Your task to perform on an android device: Open CNN.com Image 0: 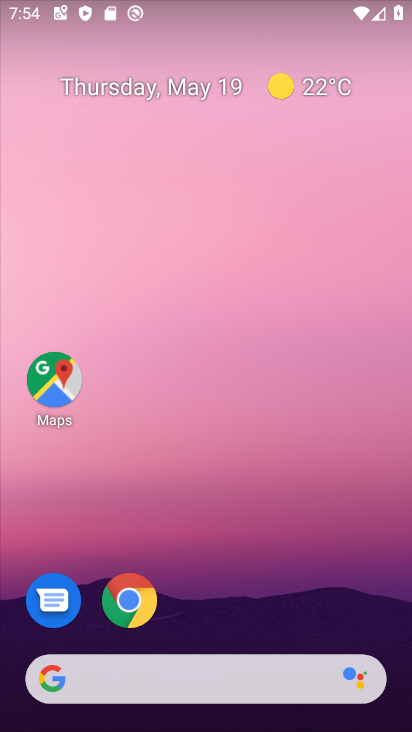
Step 0: drag from (276, 548) to (296, 156)
Your task to perform on an android device: Open CNN.com Image 1: 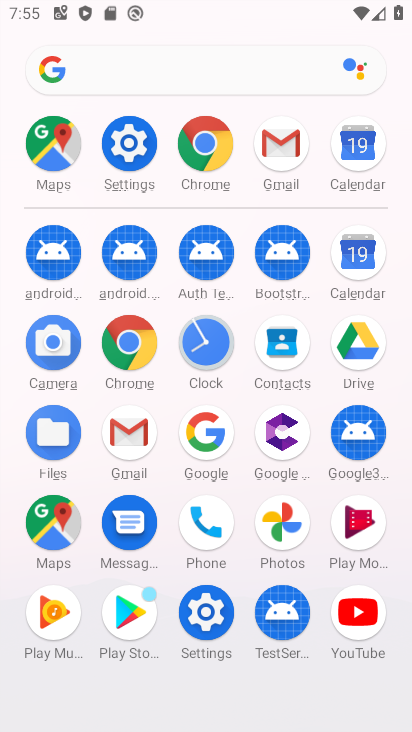
Step 1: click (117, 348)
Your task to perform on an android device: Open CNN.com Image 2: 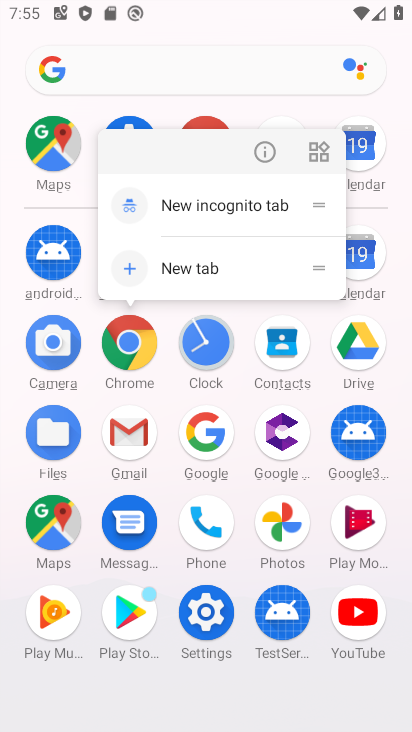
Step 2: click (134, 358)
Your task to perform on an android device: Open CNN.com Image 3: 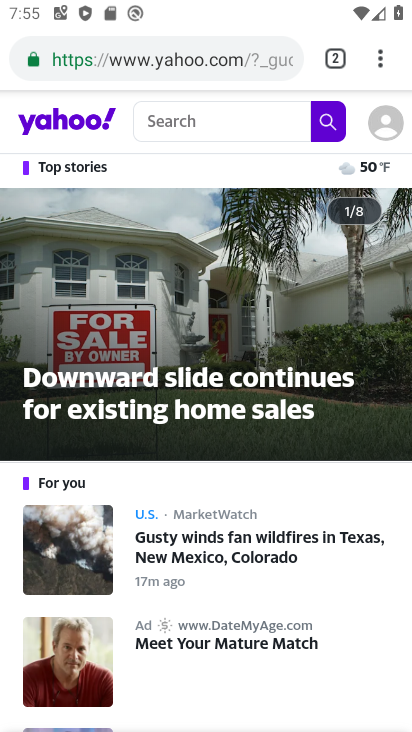
Step 3: click (200, 64)
Your task to perform on an android device: Open CNN.com Image 4: 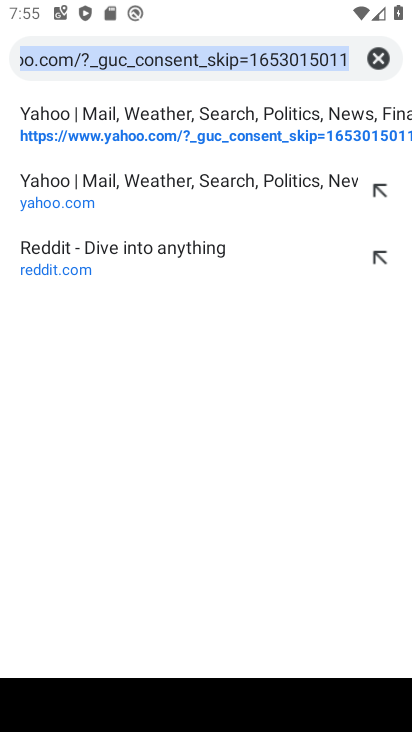
Step 4: click (376, 62)
Your task to perform on an android device: Open CNN.com Image 5: 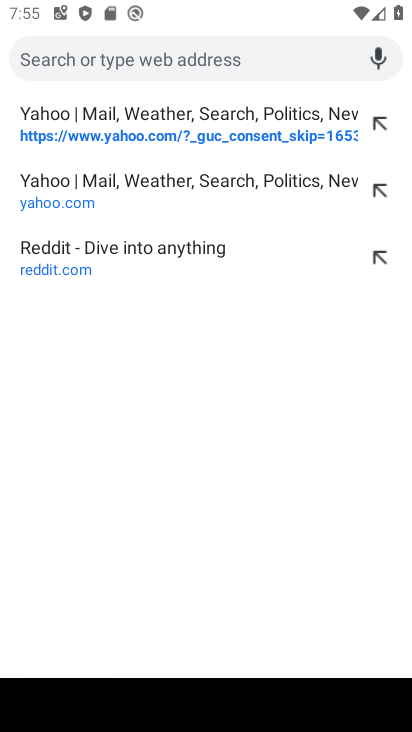
Step 5: type "cnn.com"
Your task to perform on an android device: Open CNN.com Image 6: 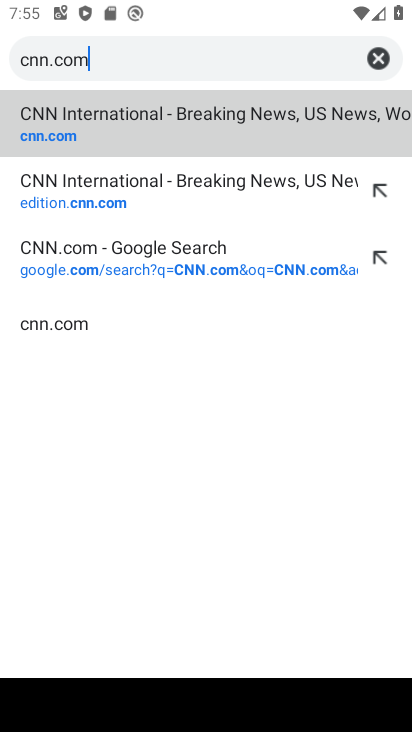
Step 6: click (80, 123)
Your task to perform on an android device: Open CNN.com Image 7: 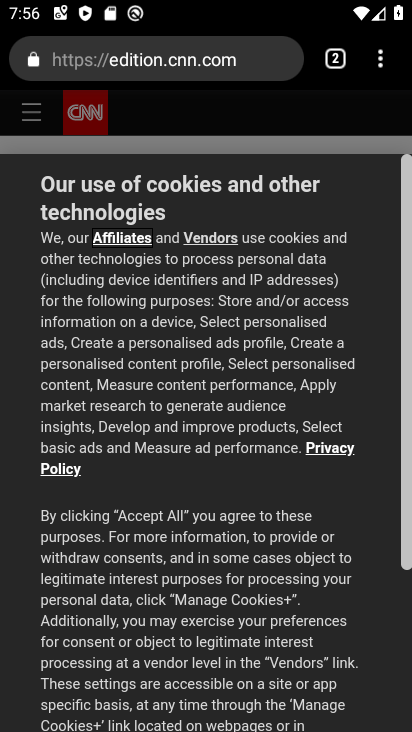
Step 7: task complete